Your task to perform on an android device: Show the shopping cart on target. Add "razer naga" to the cart on target Image 0: 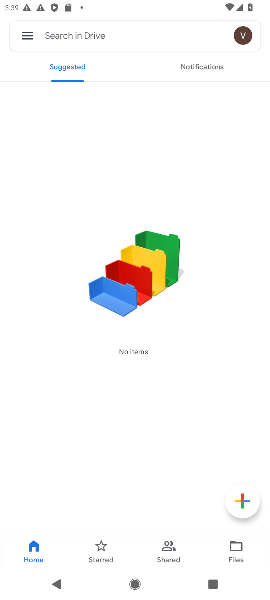
Step 0: press home button
Your task to perform on an android device: Show the shopping cart on target. Add "razer naga" to the cart on target Image 1: 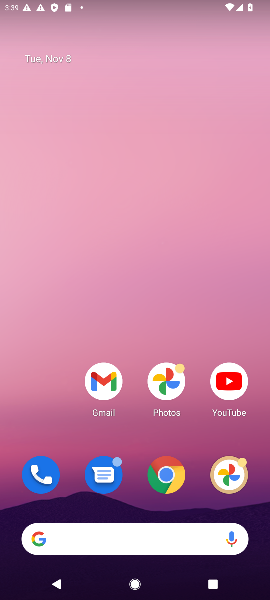
Step 1: drag from (86, 518) to (140, 110)
Your task to perform on an android device: Show the shopping cart on target. Add "razer naga" to the cart on target Image 2: 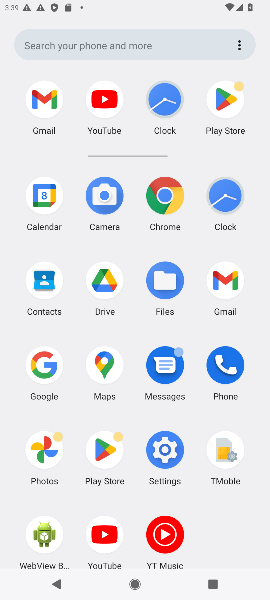
Step 2: click (45, 362)
Your task to perform on an android device: Show the shopping cart on target. Add "razer naga" to the cart on target Image 3: 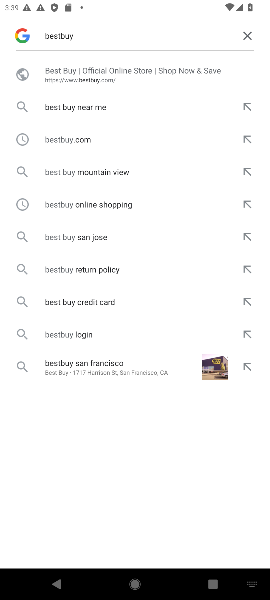
Step 3: click (247, 36)
Your task to perform on an android device: Show the shopping cart on target. Add "razer naga" to the cart on target Image 4: 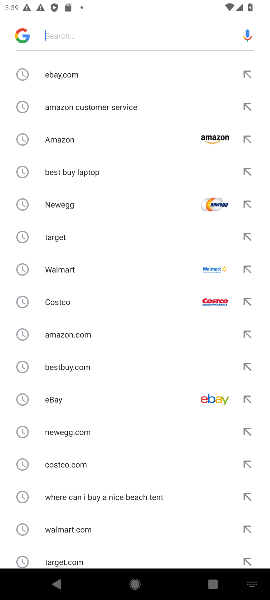
Step 4: click (119, 32)
Your task to perform on an android device: Show the shopping cart on target. Add "razer naga" to the cart on target Image 5: 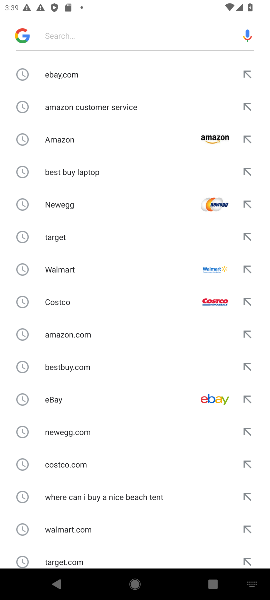
Step 5: type "target "
Your task to perform on an android device: Show the shopping cart on target. Add "razer naga" to the cart on target Image 6: 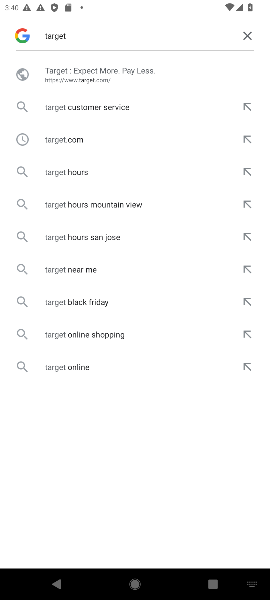
Step 6: click (74, 66)
Your task to perform on an android device: Show the shopping cart on target. Add "razer naga" to the cart on target Image 7: 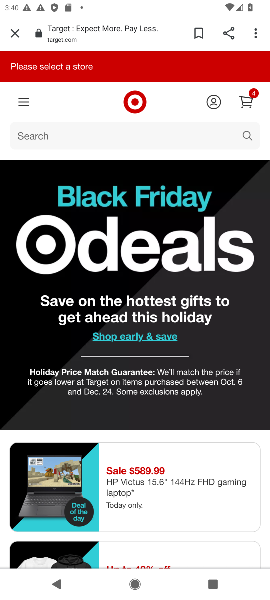
Step 7: click (66, 140)
Your task to perform on an android device: Show the shopping cart on target. Add "razer naga" to the cart on target Image 8: 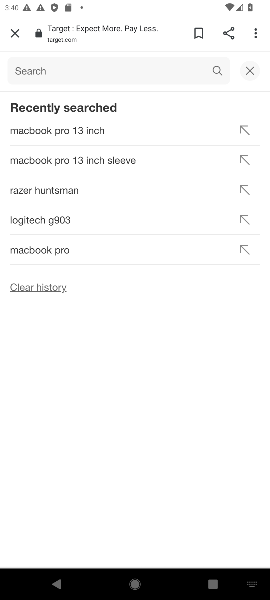
Step 8: click (74, 73)
Your task to perform on an android device: Show the shopping cart on target. Add "razer naga" to the cart on target Image 9: 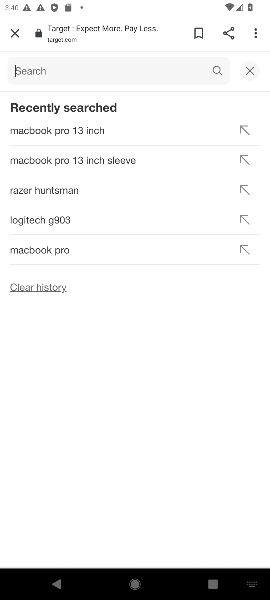
Step 9: click (74, 66)
Your task to perform on an android device: Show the shopping cart on target. Add "razer naga" to the cart on target Image 10: 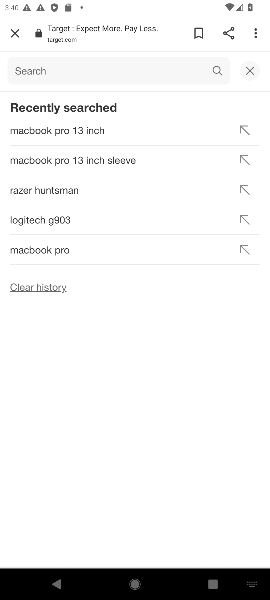
Step 10: type "razer naga "
Your task to perform on an android device: Show the shopping cart on target. Add "razer naga" to the cart on target Image 11: 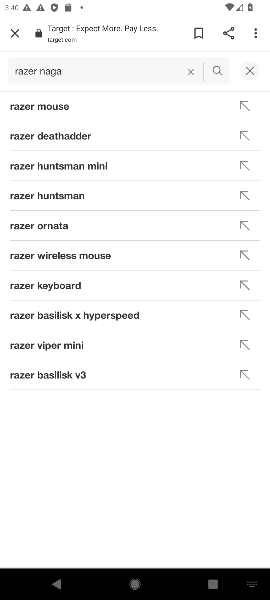
Step 11: click (47, 102)
Your task to perform on an android device: Show the shopping cart on target. Add "razer naga" to the cart on target Image 12: 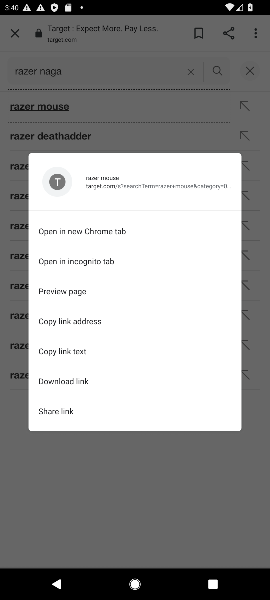
Step 12: click (44, 110)
Your task to perform on an android device: Show the shopping cart on target. Add "razer naga" to the cart on target Image 13: 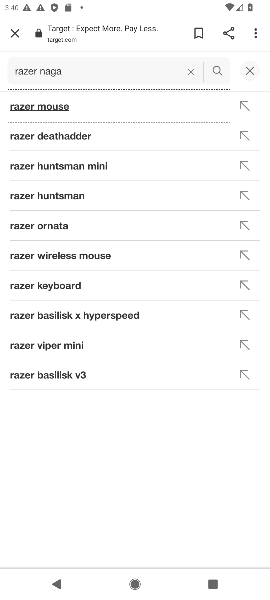
Step 13: click (48, 107)
Your task to perform on an android device: Show the shopping cart on target. Add "razer naga" to the cart on target Image 14: 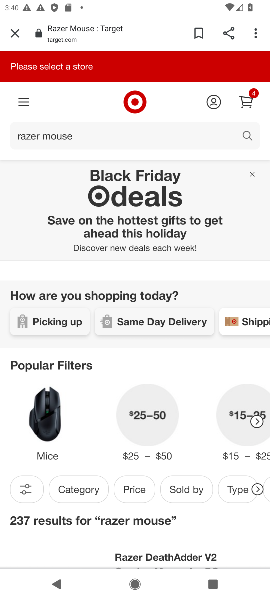
Step 14: drag from (117, 513) to (167, 171)
Your task to perform on an android device: Show the shopping cart on target. Add "razer naga" to the cart on target Image 15: 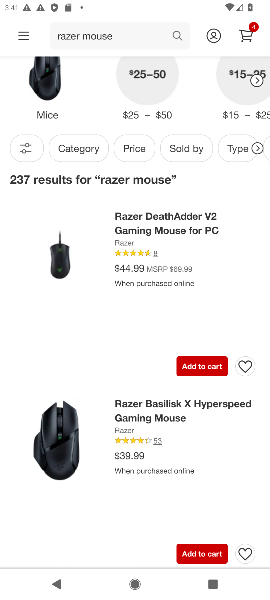
Step 15: click (201, 356)
Your task to perform on an android device: Show the shopping cart on target. Add "razer naga" to the cart on target Image 16: 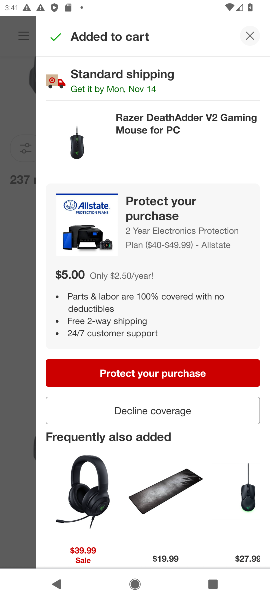
Step 16: task complete